Your task to perform on an android device: open app "LiveIn - Share Your Moment" (install if not already installed) Image 0: 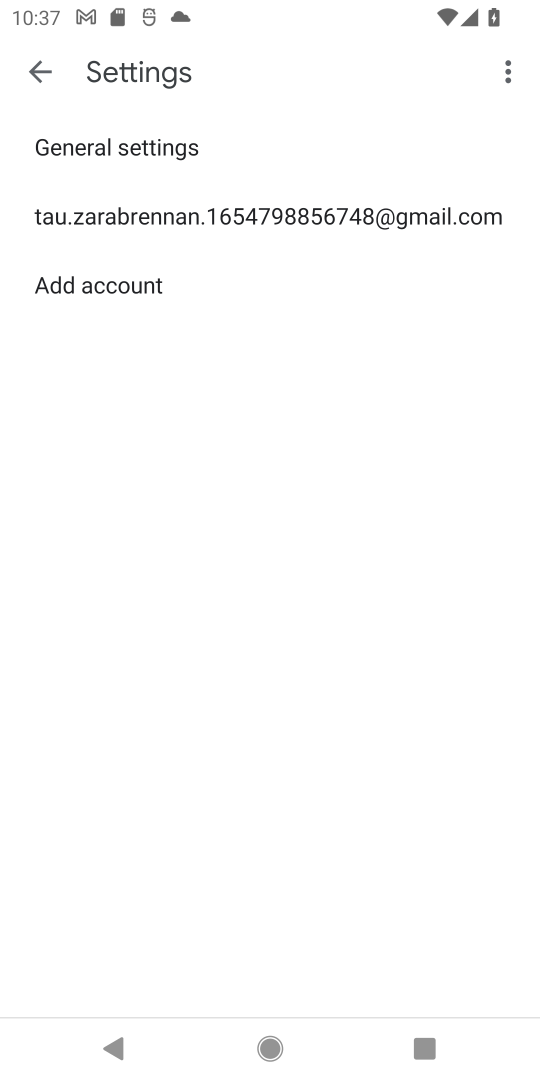
Step 0: press home button
Your task to perform on an android device: open app "LiveIn - Share Your Moment" (install if not already installed) Image 1: 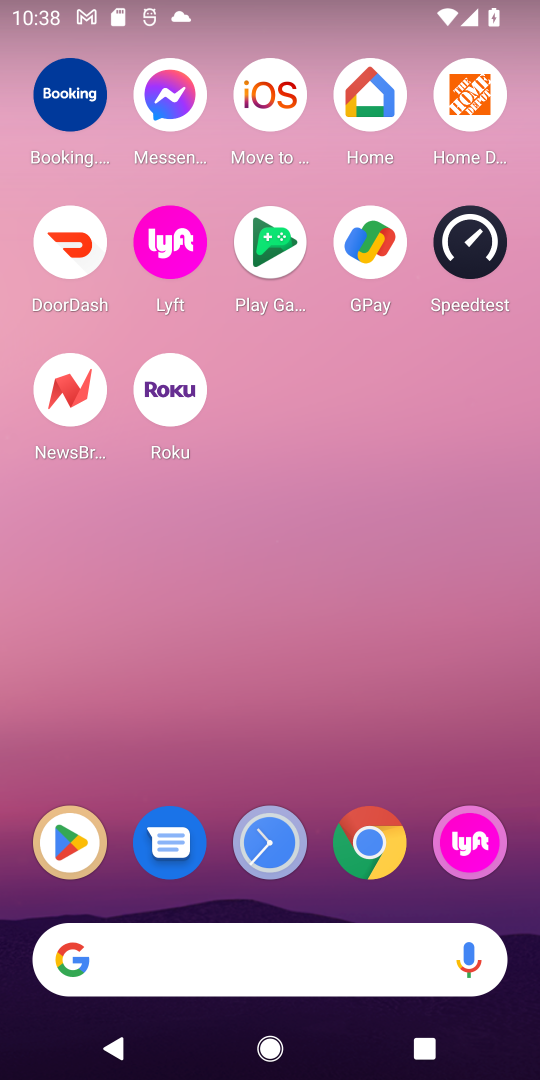
Step 1: click (59, 838)
Your task to perform on an android device: open app "LiveIn - Share Your Moment" (install if not already installed) Image 2: 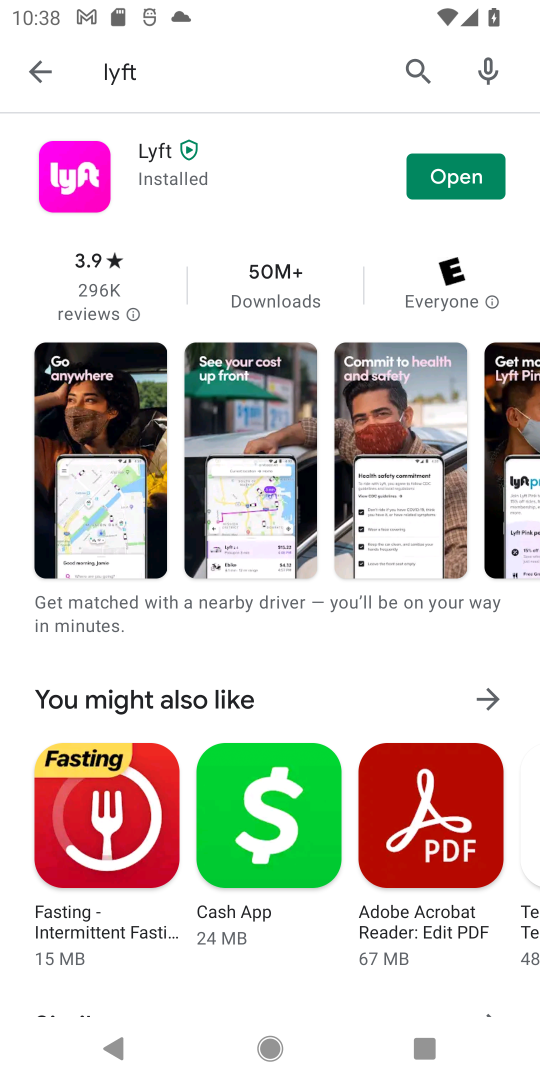
Step 2: click (406, 86)
Your task to perform on an android device: open app "LiveIn - Share Your Moment" (install if not already installed) Image 3: 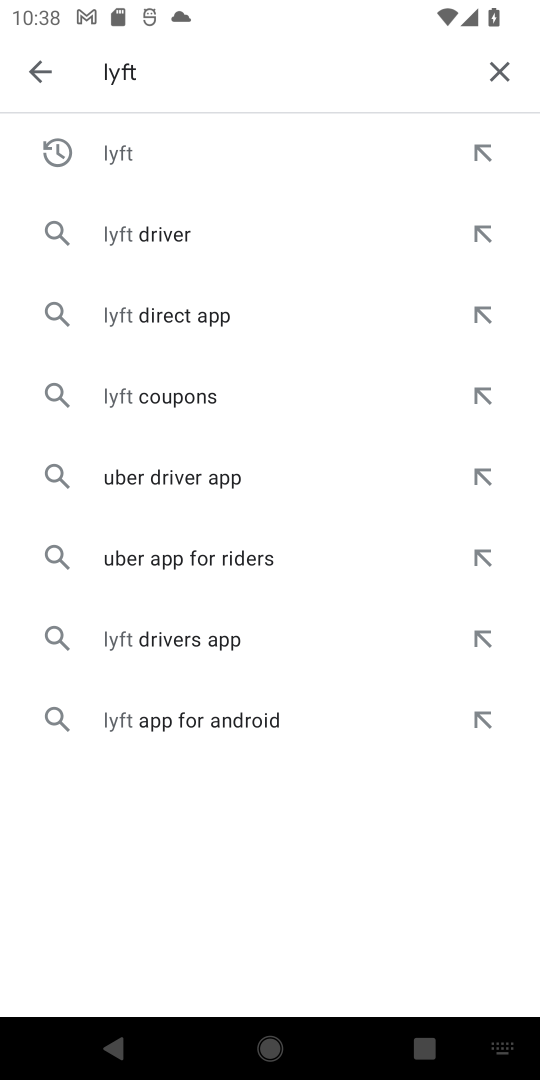
Step 3: click (497, 76)
Your task to perform on an android device: open app "LiveIn - Share Your Moment" (install if not already installed) Image 4: 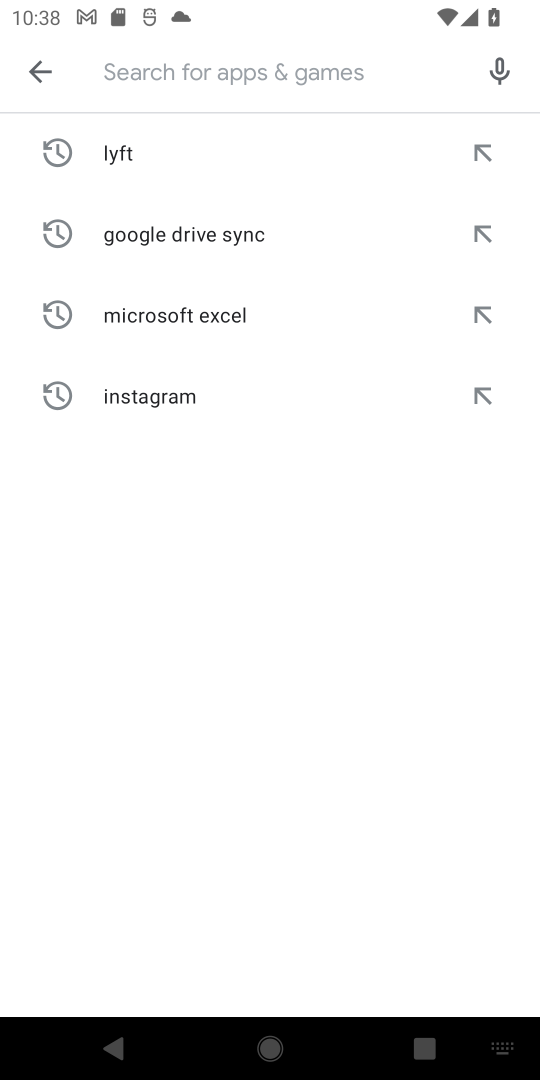
Step 4: click (197, 77)
Your task to perform on an android device: open app "LiveIn - Share Your Moment" (install if not already installed) Image 5: 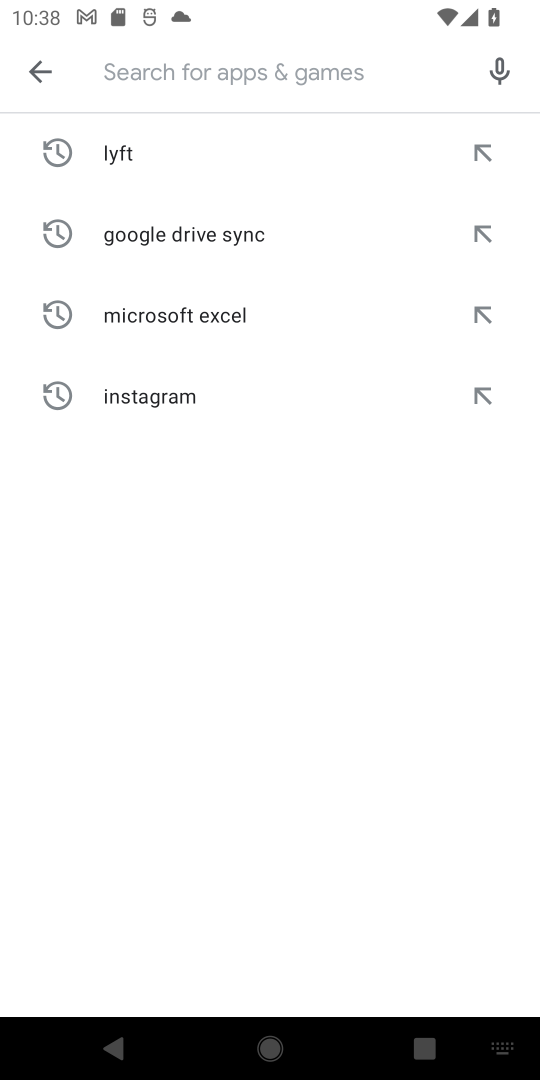
Step 5: type "li"
Your task to perform on an android device: open app "LiveIn - Share Your Moment" (install if not already installed) Image 6: 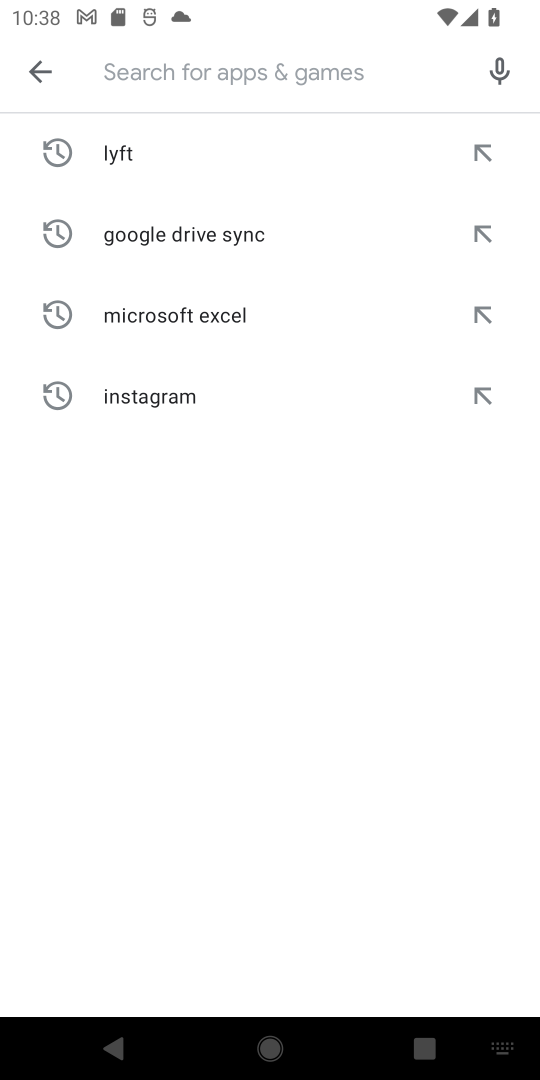
Step 6: click (179, 84)
Your task to perform on an android device: open app "LiveIn - Share Your Moment" (install if not already installed) Image 7: 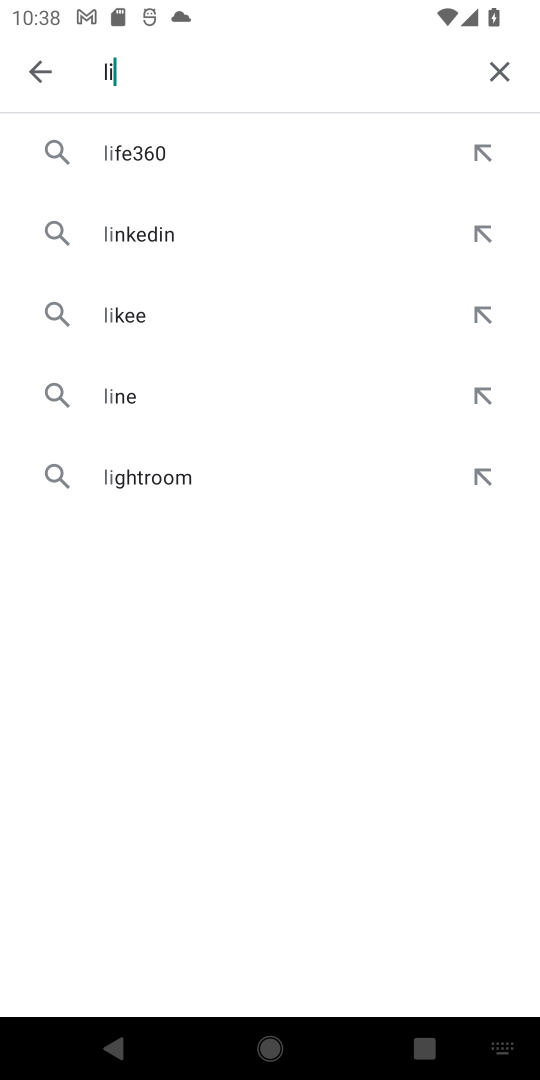
Step 7: type "liveln"
Your task to perform on an android device: open app "LiveIn - Share Your Moment" (install if not already installed) Image 8: 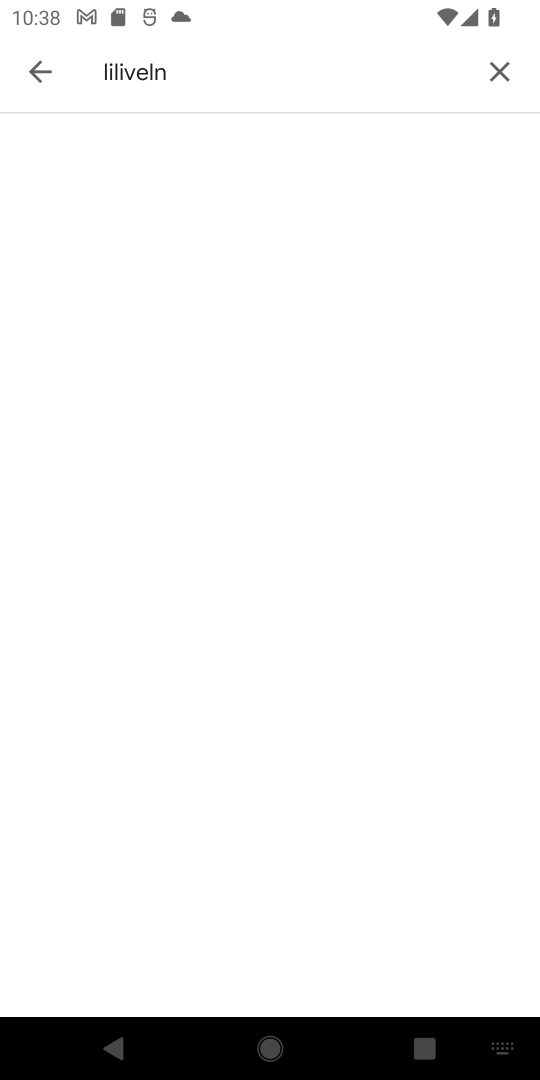
Step 8: click (496, 71)
Your task to perform on an android device: open app "LiveIn - Share Your Moment" (install if not already installed) Image 9: 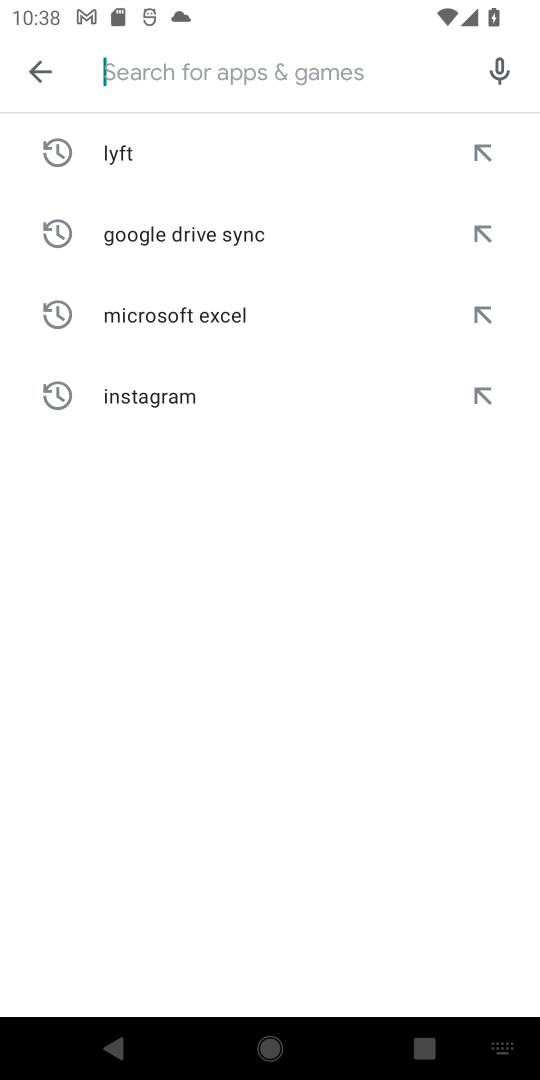
Step 9: click (290, 53)
Your task to perform on an android device: open app "LiveIn - Share Your Moment" (install if not already installed) Image 10: 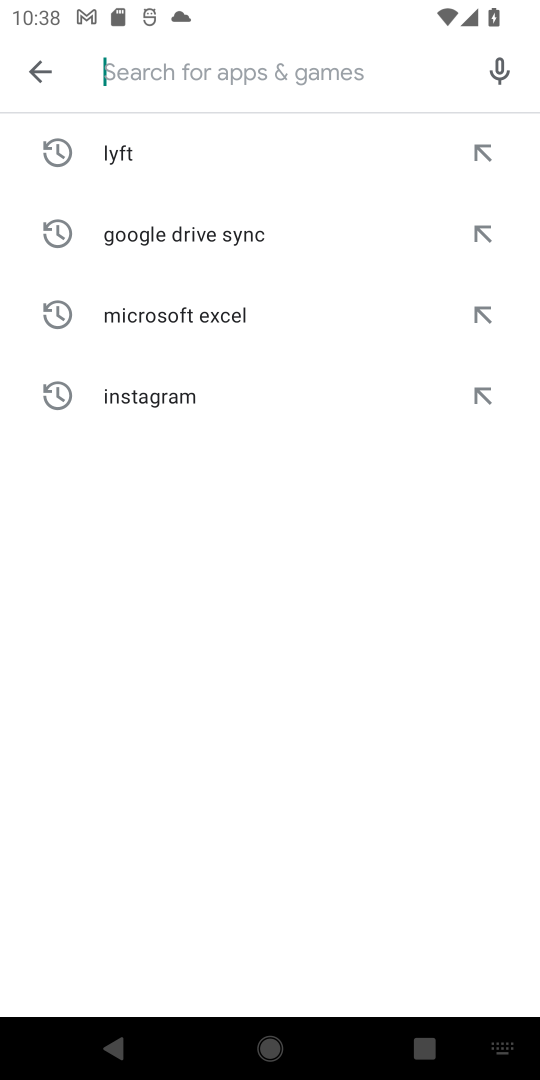
Step 10: type "liveln"
Your task to perform on an android device: open app "LiveIn - Share Your Moment" (install if not already installed) Image 11: 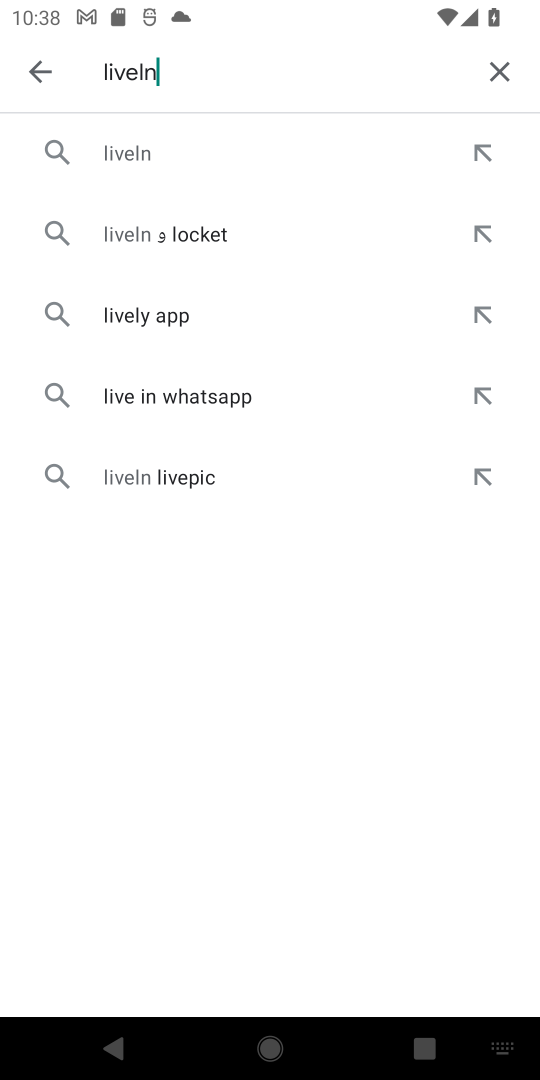
Step 11: click (178, 141)
Your task to perform on an android device: open app "LiveIn - Share Your Moment" (install if not already installed) Image 12: 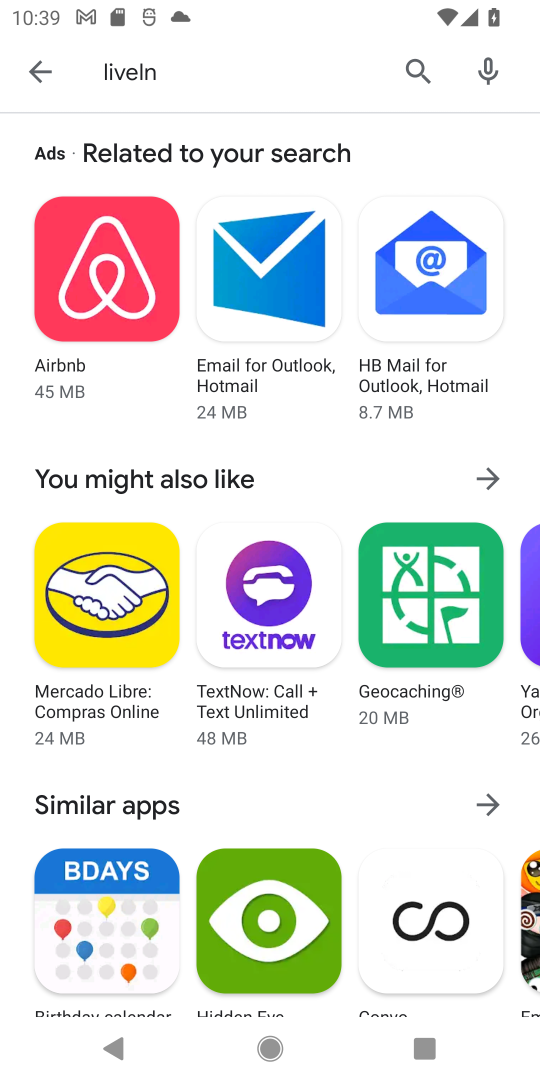
Step 12: task complete